Your task to perform on an android device: turn on javascript in the chrome app Image 0: 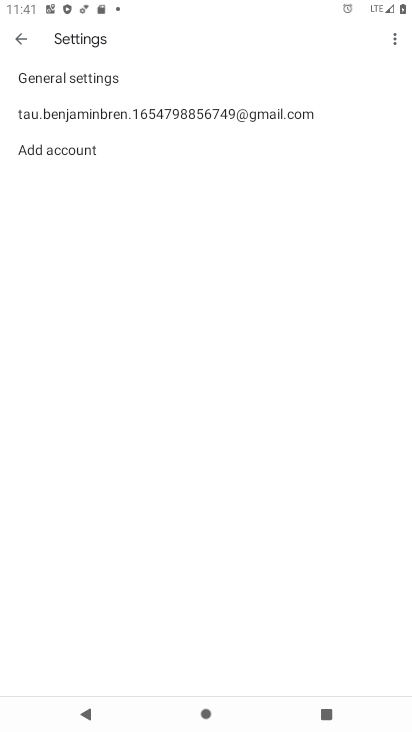
Step 0: press home button
Your task to perform on an android device: turn on javascript in the chrome app Image 1: 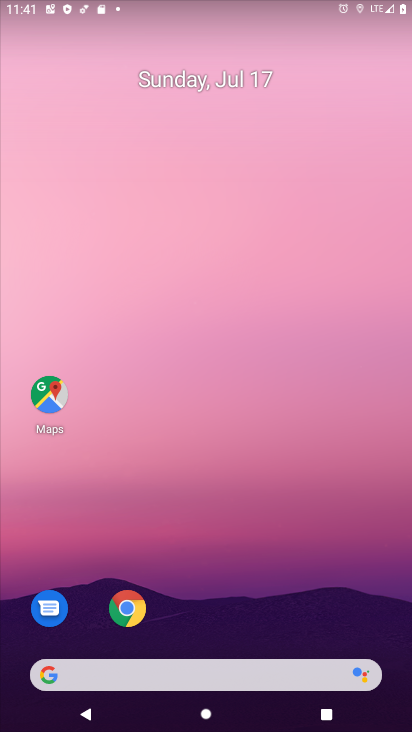
Step 1: click (116, 609)
Your task to perform on an android device: turn on javascript in the chrome app Image 2: 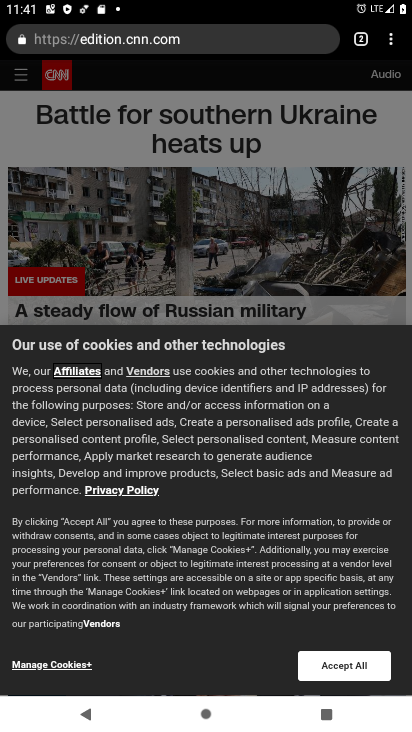
Step 2: click (389, 42)
Your task to perform on an android device: turn on javascript in the chrome app Image 3: 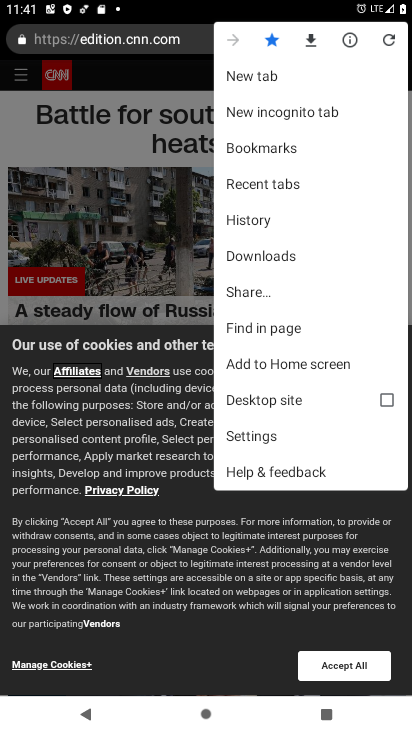
Step 3: click (236, 433)
Your task to perform on an android device: turn on javascript in the chrome app Image 4: 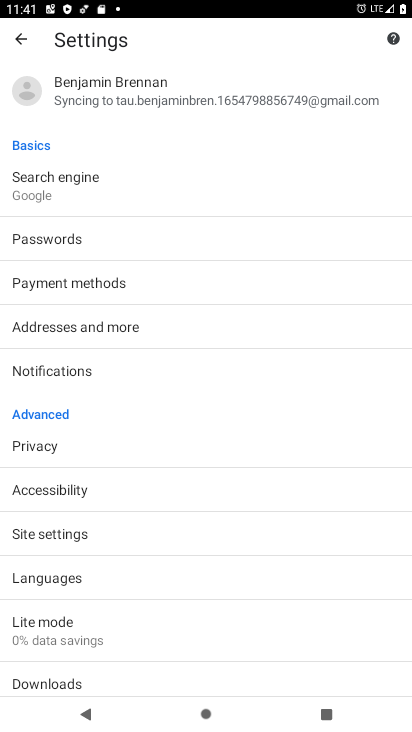
Step 4: click (50, 537)
Your task to perform on an android device: turn on javascript in the chrome app Image 5: 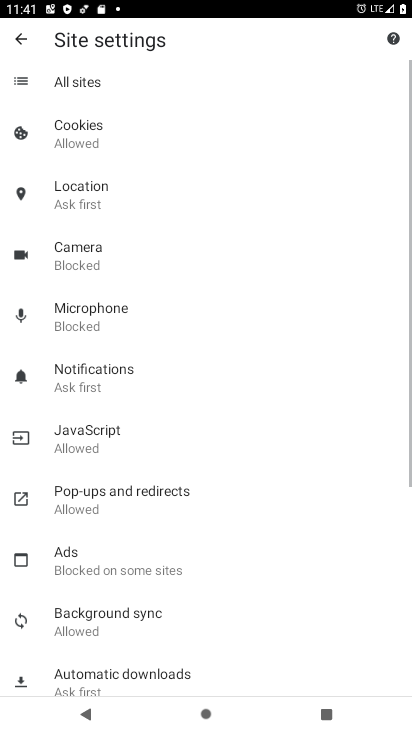
Step 5: click (65, 431)
Your task to perform on an android device: turn on javascript in the chrome app Image 6: 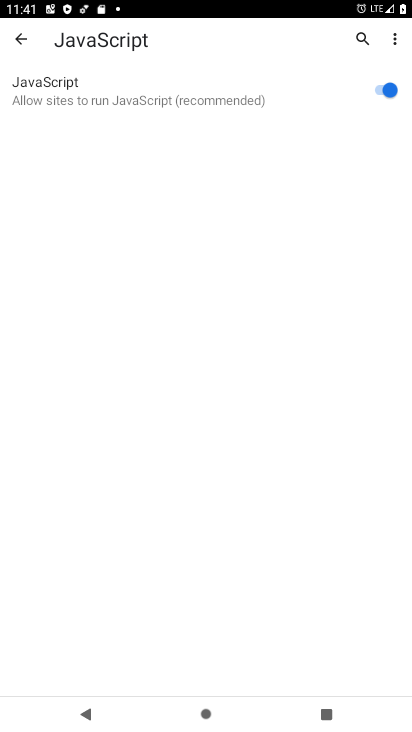
Step 6: click (379, 91)
Your task to perform on an android device: turn on javascript in the chrome app Image 7: 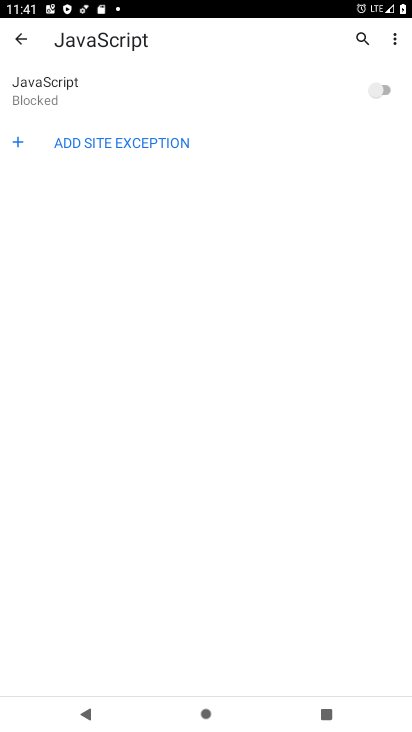
Step 7: click (371, 89)
Your task to perform on an android device: turn on javascript in the chrome app Image 8: 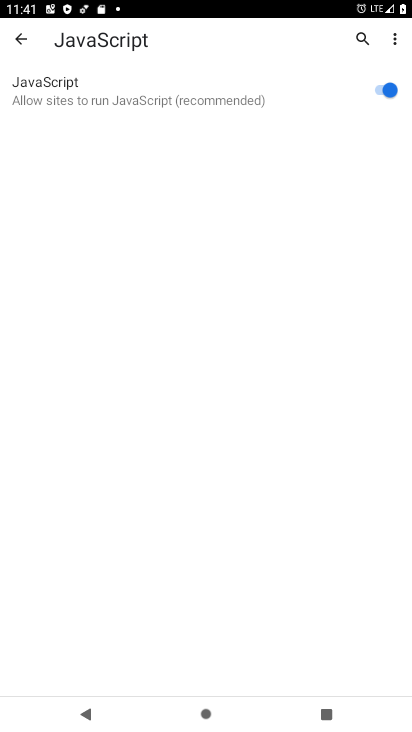
Step 8: task complete